Your task to perform on an android device: uninstall "PUBG MOBILE" Image 0: 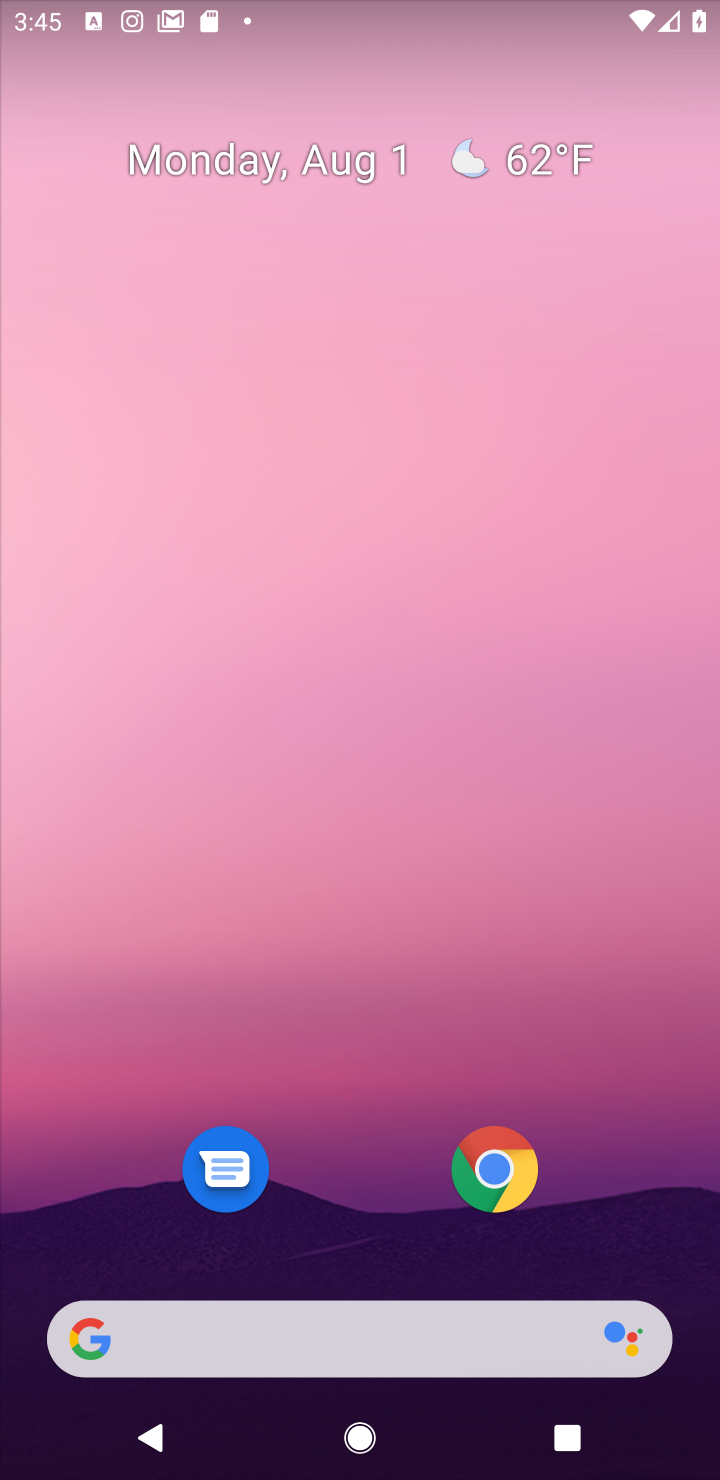
Step 0: press home button
Your task to perform on an android device: uninstall "PUBG MOBILE" Image 1: 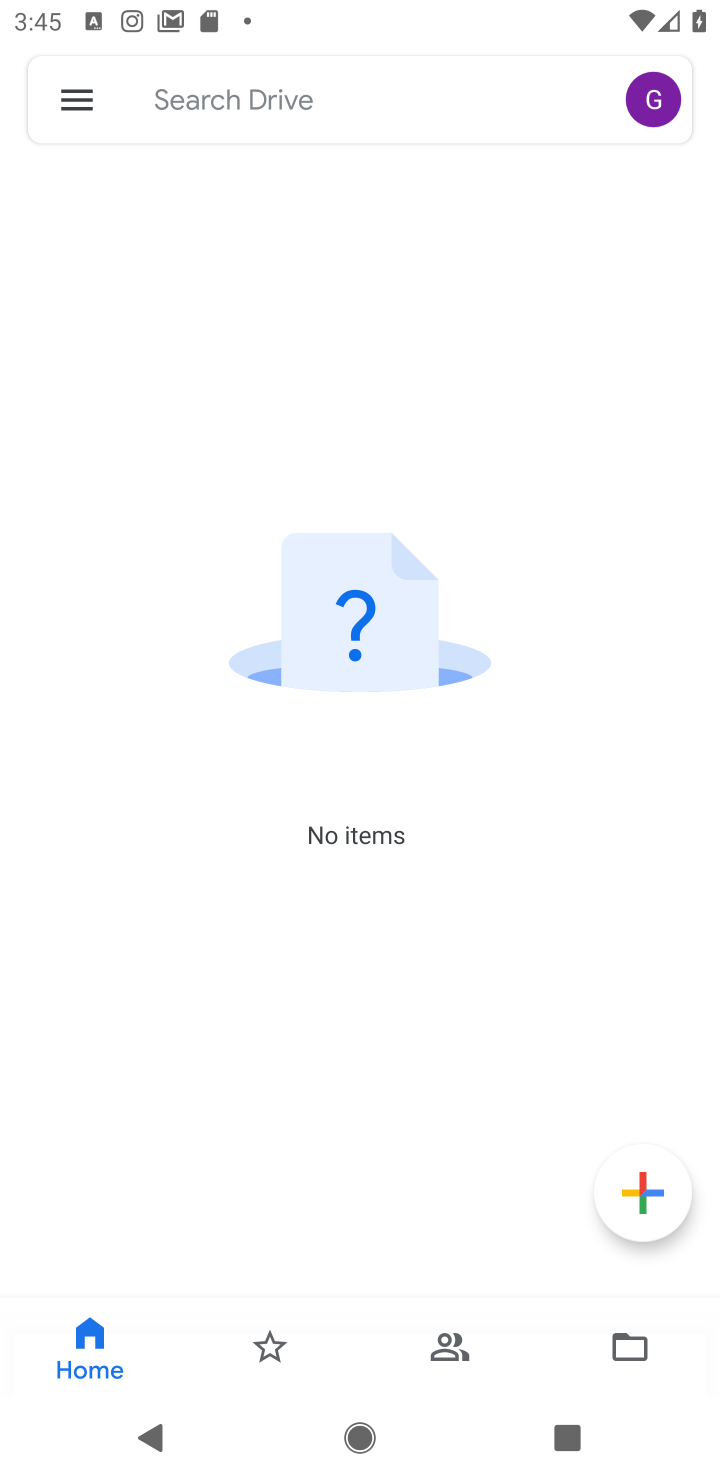
Step 1: press home button
Your task to perform on an android device: uninstall "PUBG MOBILE" Image 2: 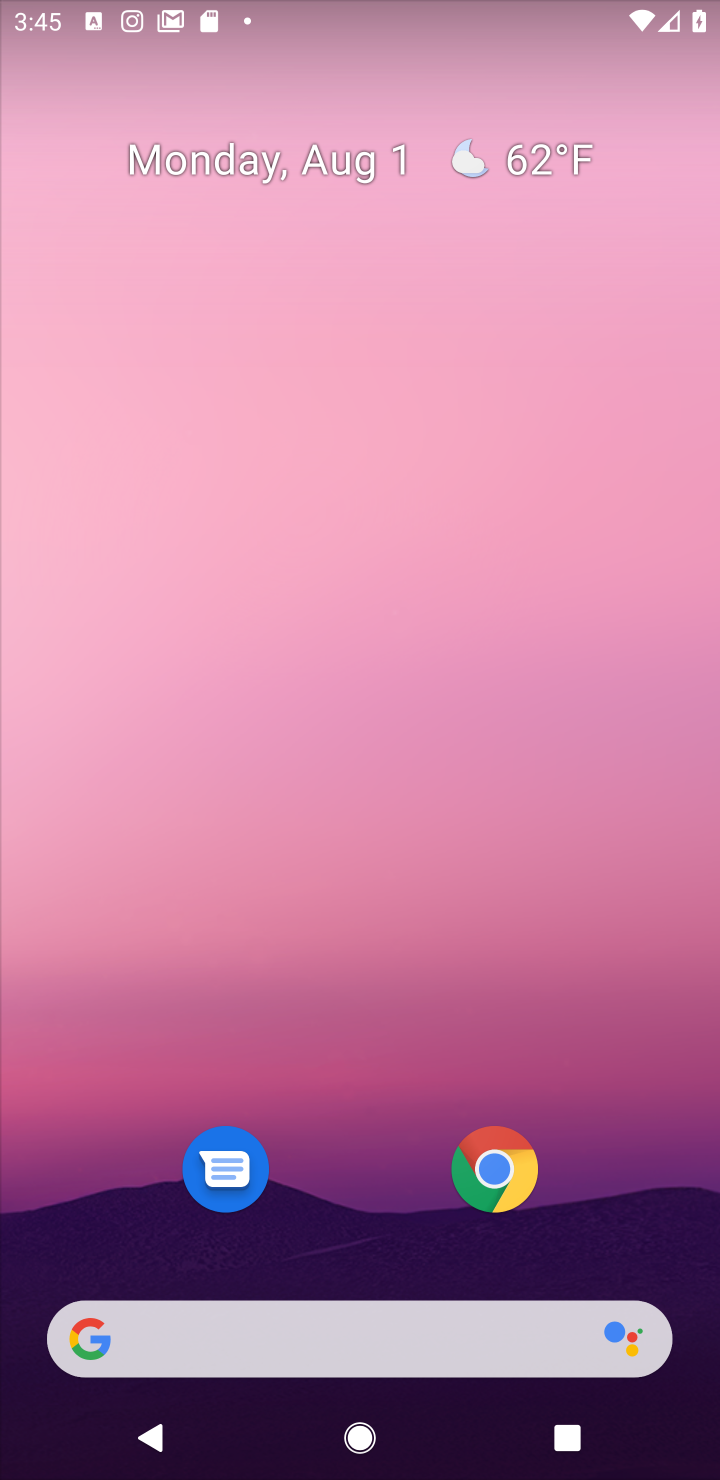
Step 2: drag from (337, 1230) to (391, 44)
Your task to perform on an android device: uninstall "PUBG MOBILE" Image 3: 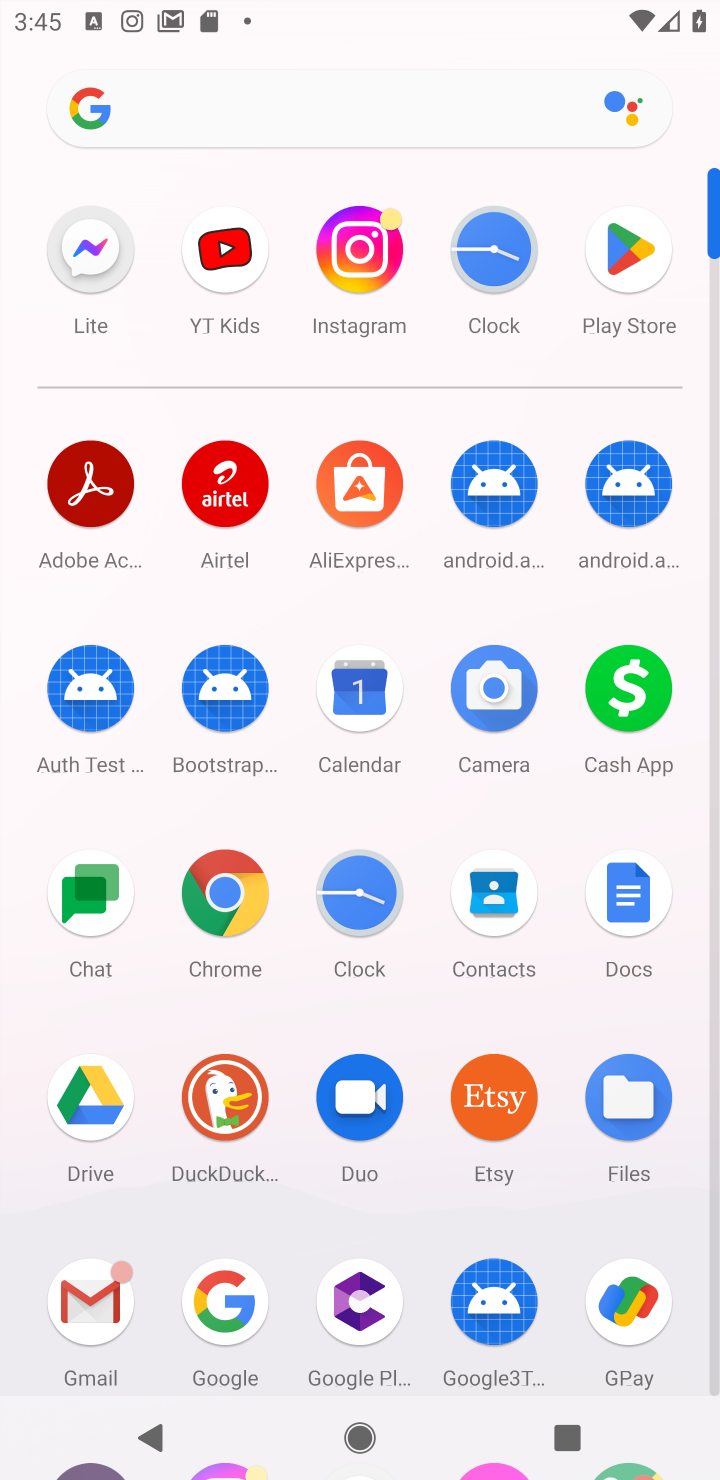
Step 3: click (609, 324)
Your task to perform on an android device: uninstall "PUBG MOBILE" Image 4: 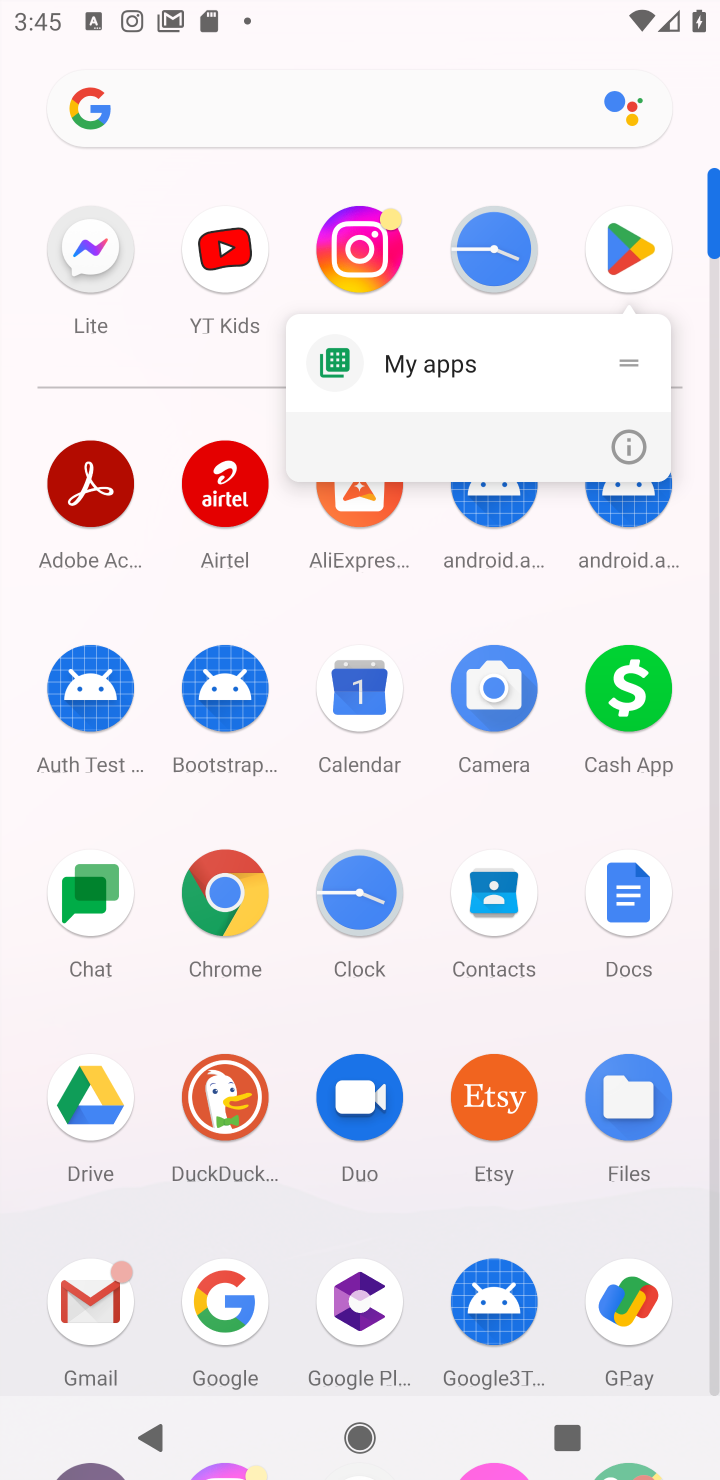
Step 4: click (609, 277)
Your task to perform on an android device: uninstall "PUBG MOBILE" Image 5: 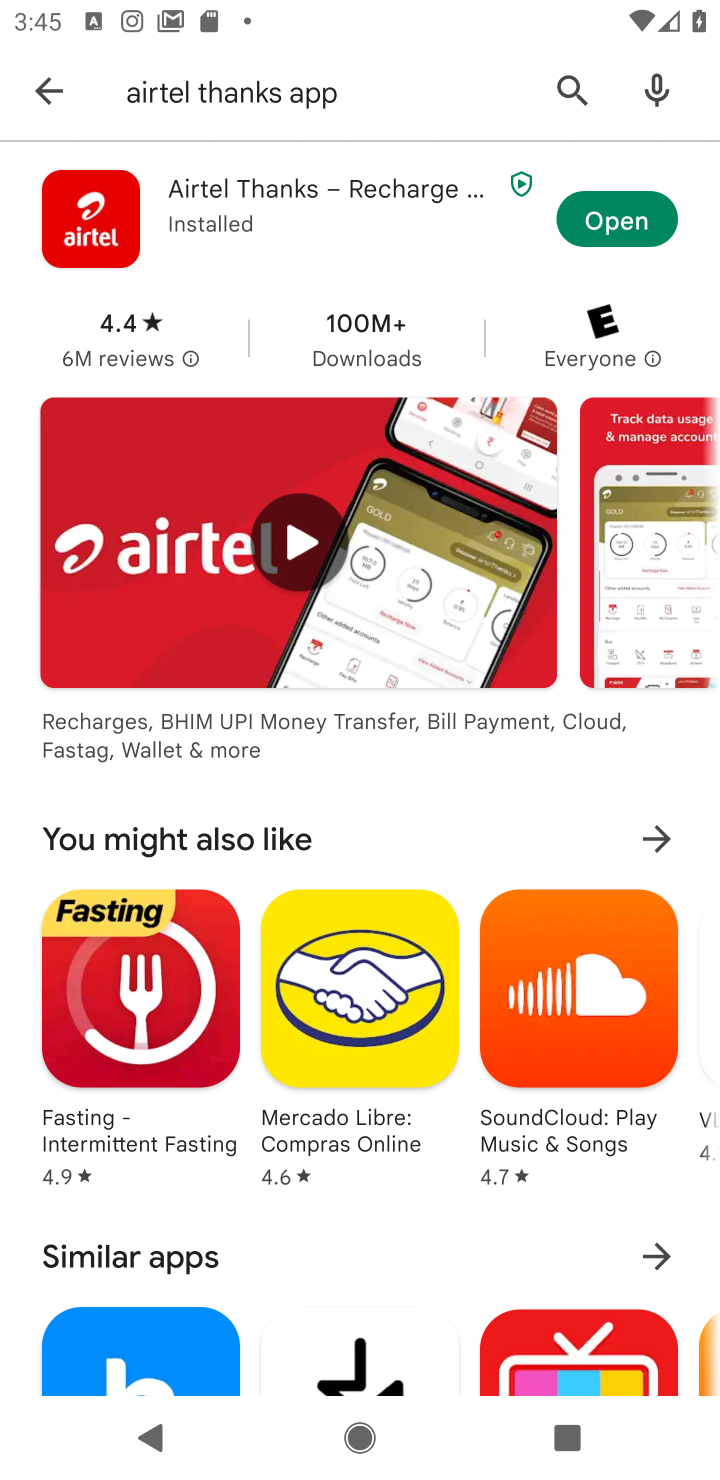
Step 5: click (38, 85)
Your task to perform on an android device: uninstall "PUBG MOBILE" Image 6: 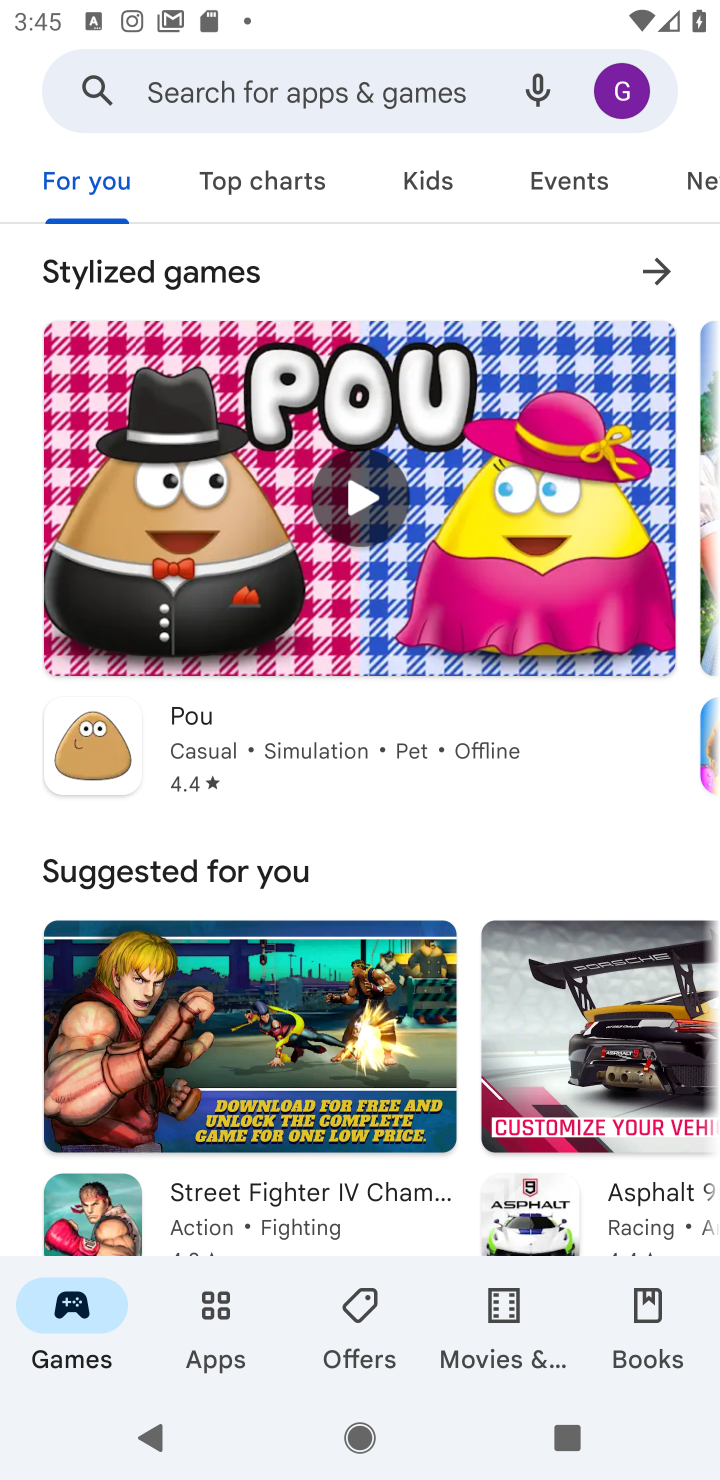
Step 6: click (313, 93)
Your task to perform on an android device: uninstall "PUBG MOBILE" Image 7: 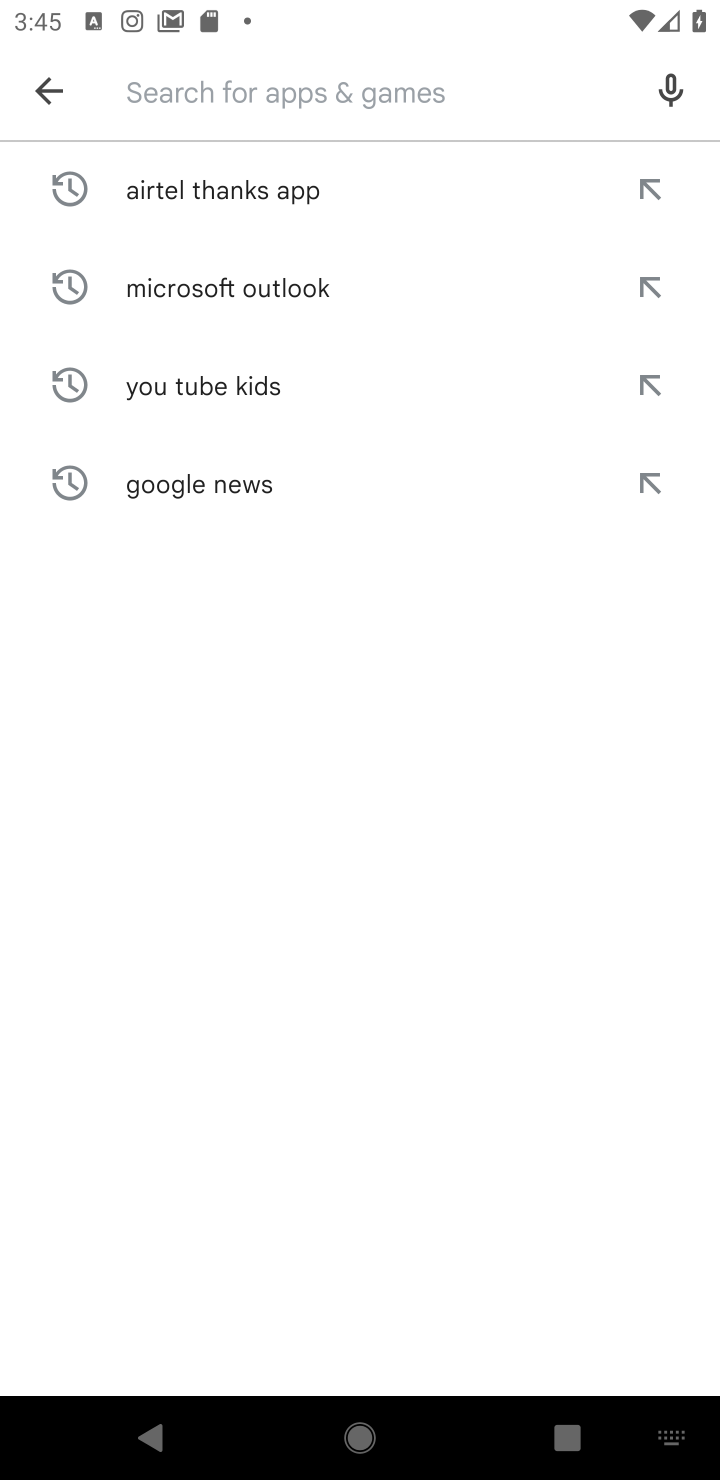
Step 7: type "PUBG MOBILE"
Your task to perform on an android device: uninstall "PUBG MOBILE" Image 8: 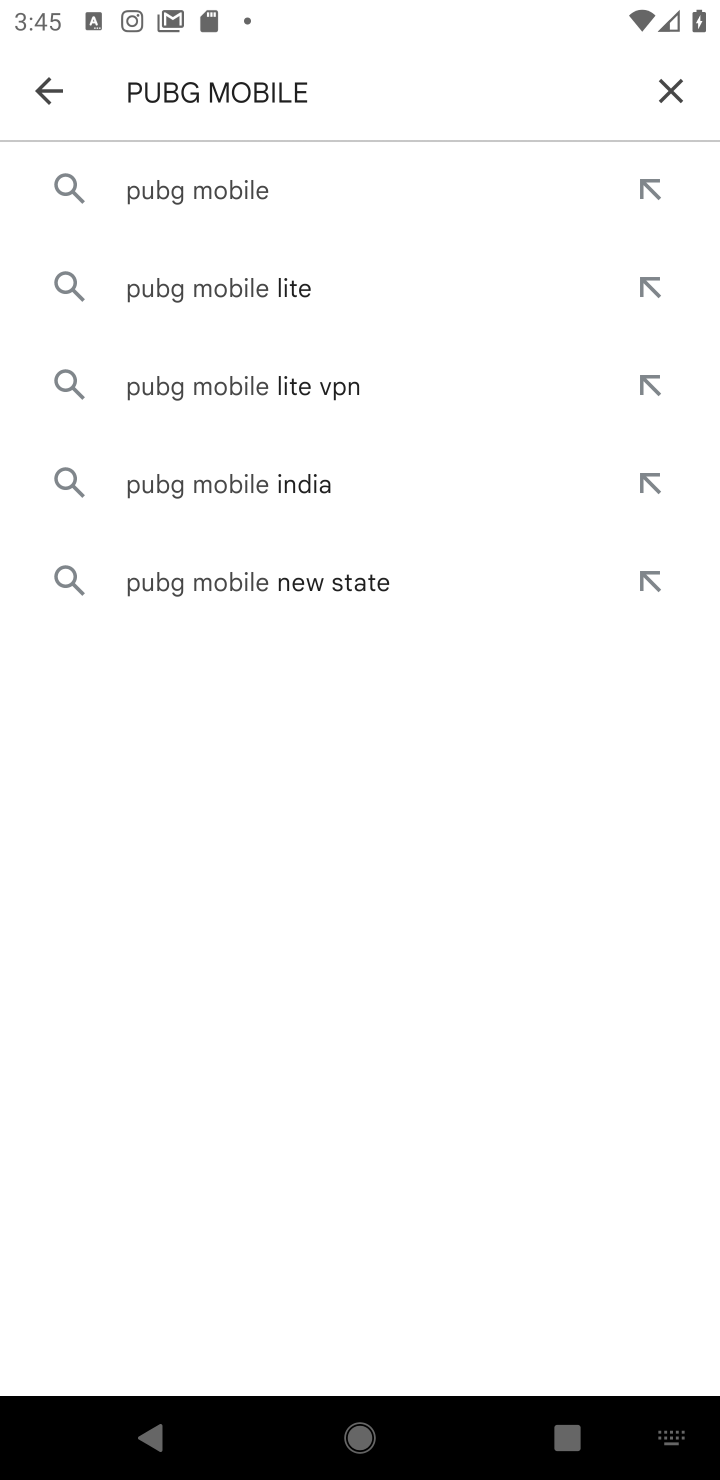
Step 8: click (221, 192)
Your task to perform on an android device: uninstall "PUBG MOBILE" Image 9: 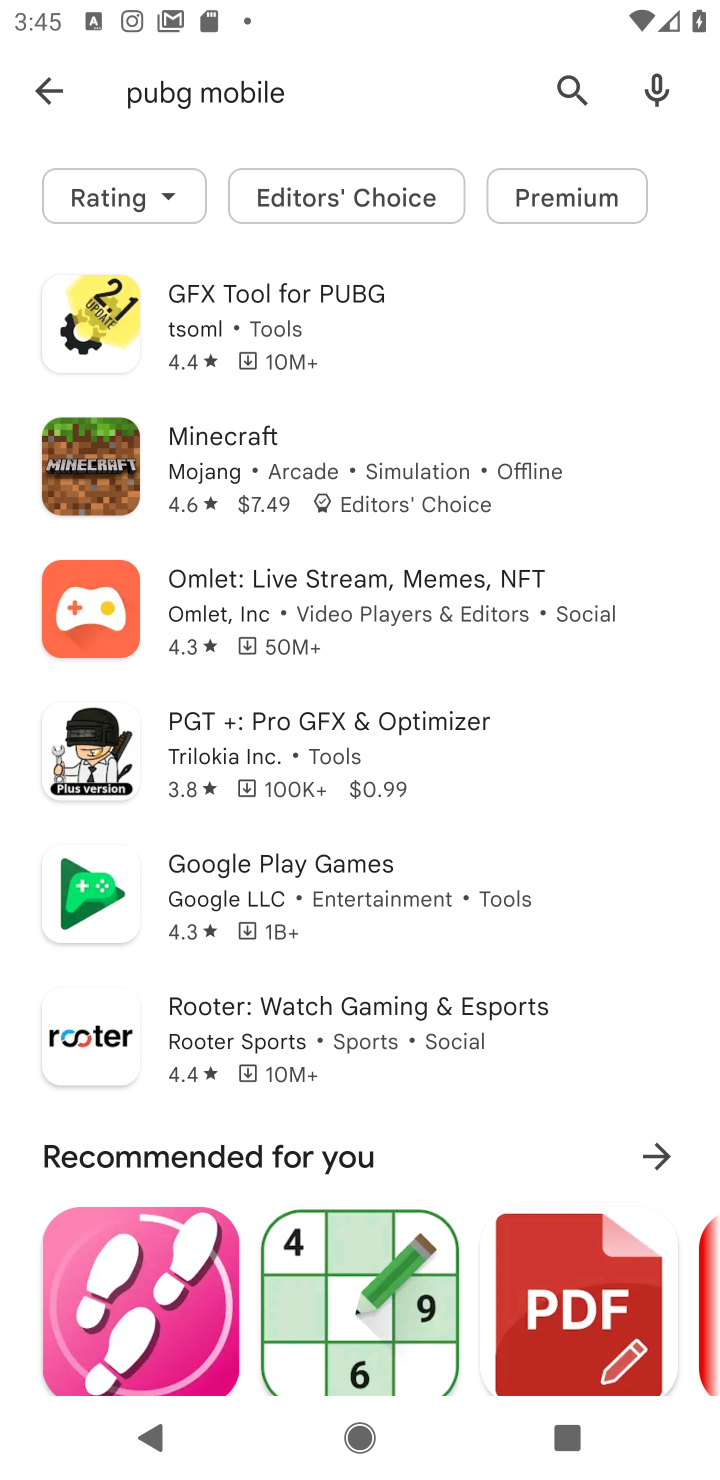
Step 9: click (333, 325)
Your task to perform on an android device: uninstall "PUBG MOBILE" Image 10: 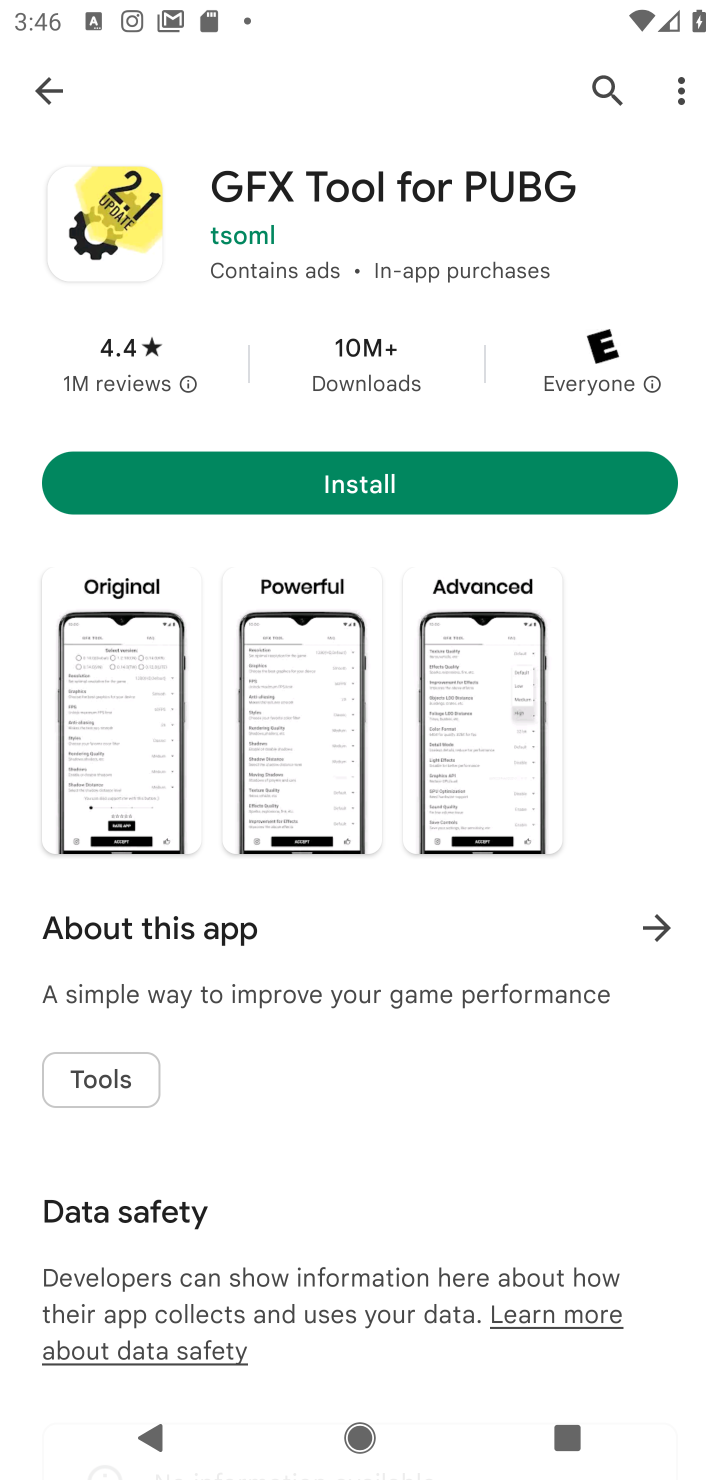
Step 10: task complete